Your task to perform on an android device: What is the news today? Image 0: 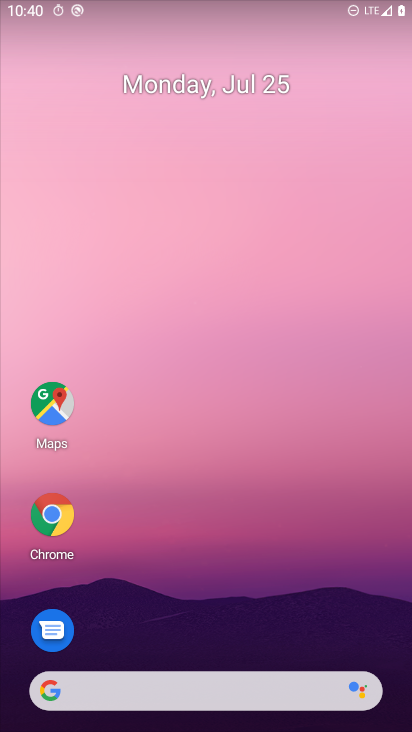
Step 0: click (73, 694)
Your task to perform on an android device: What is the news today? Image 1: 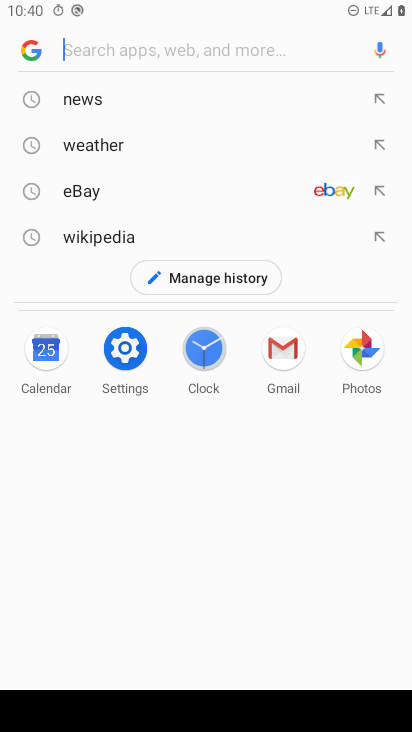
Step 1: type "What is the news today?"
Your task to perform on an android device: What is the news today? Image 2: 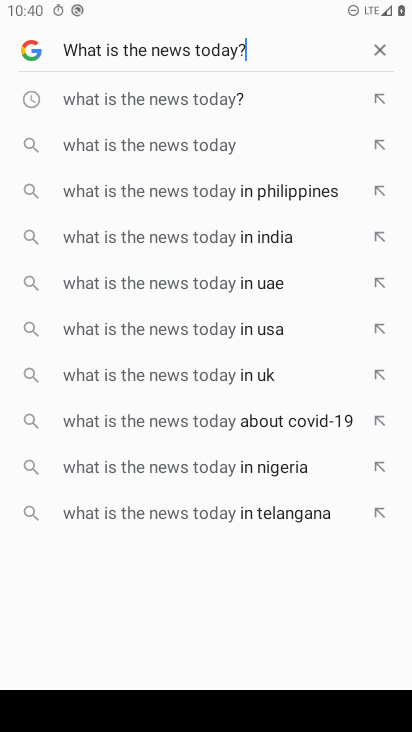
Step 2: type ""
Your task to perform on an android device: What is the news today? Image 3: 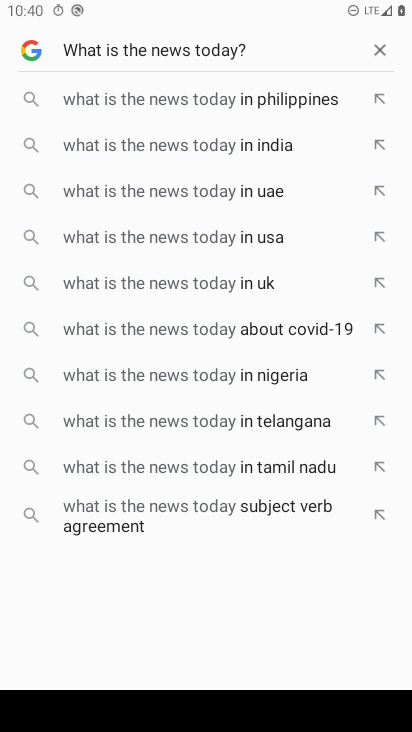
Step 3: type ""
Your task to perform on an android device: What is the news today? Image 4: 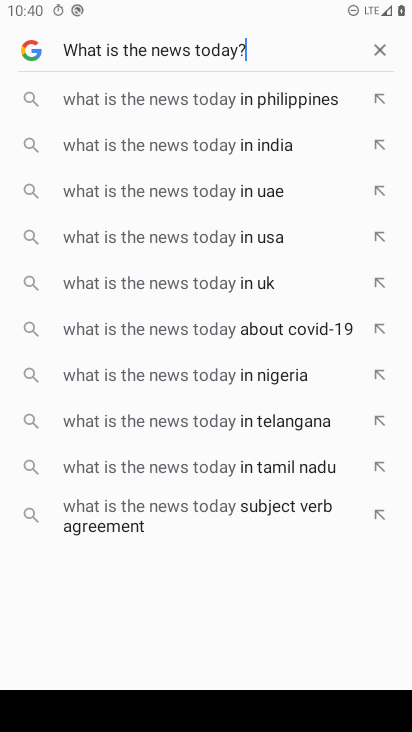
Step 4: type ""
Your task to perform on an android device: What is the news today? Image 5: 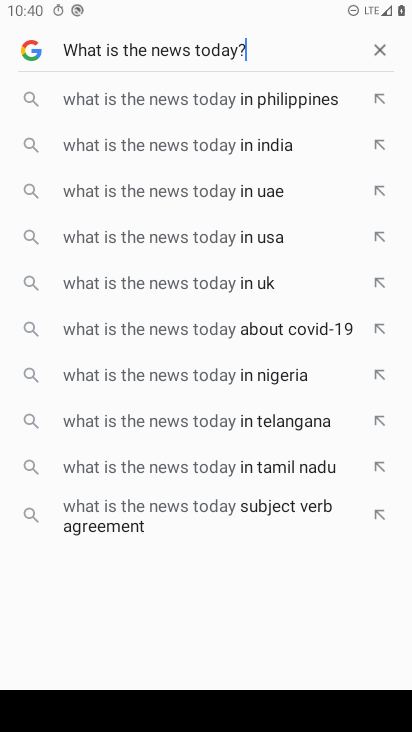
Step 5: task complete